Your task to perform on an android device: Go to wifi settings Image 0: 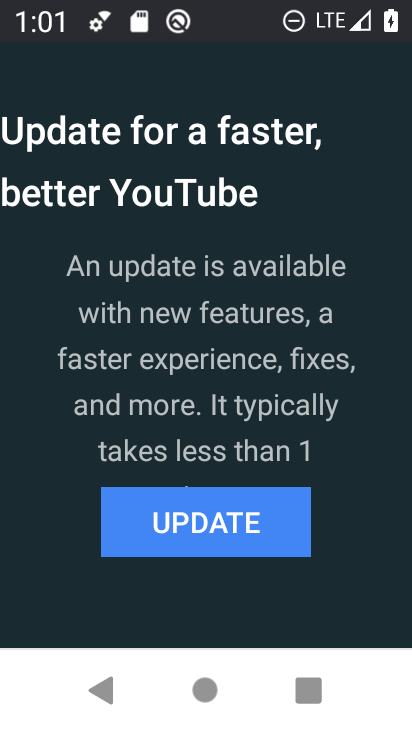
Step 0: press home button
Your task to perform on an android device: Go to wifi settings Image 1: 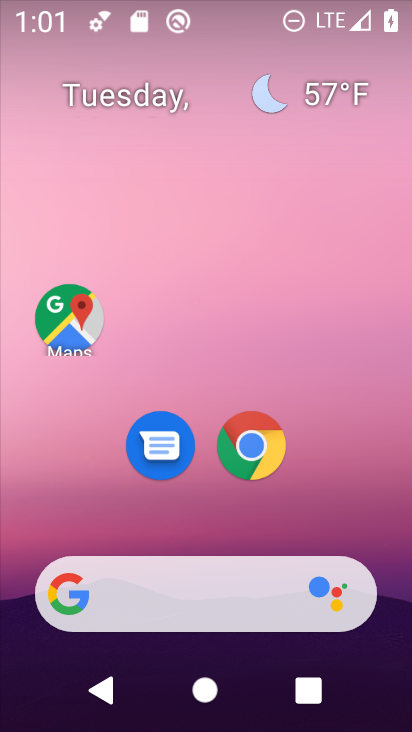
Step 1: drag from (366, 530) to (379, 225)
Your task to perform on an android device: Go to wifi settings Image 2: 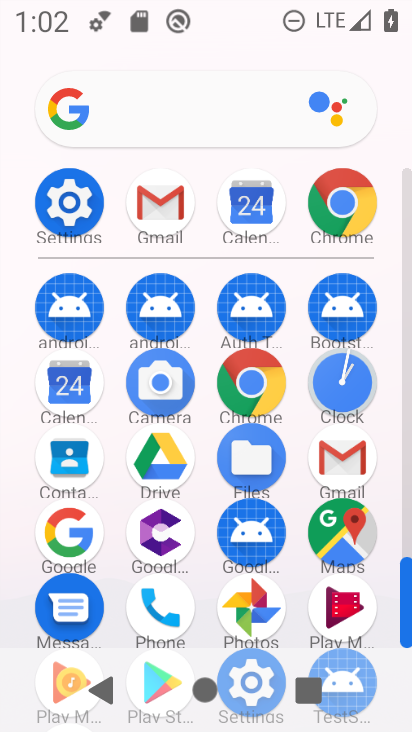
Step 2: drag from (391, 542) to (381, 295)
Your task to perform on an android device: Go to wifi settings Image 3: 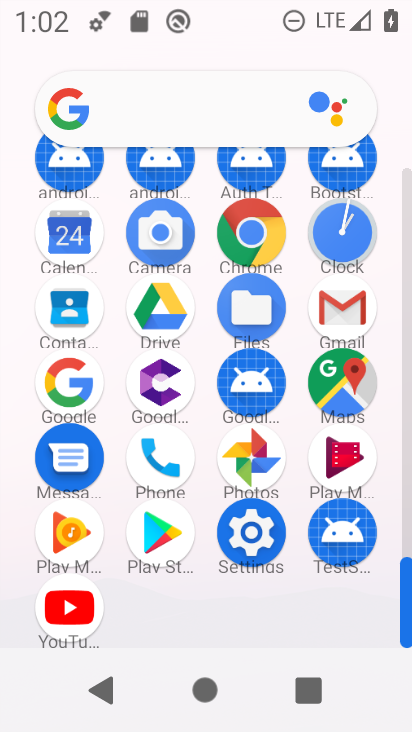
Step 3: click (254, 561)
Your task to perform on an android device: Go to wifi settings Image 4: 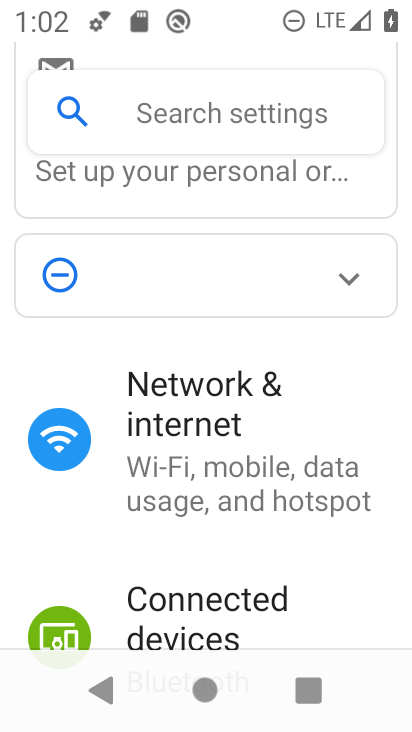
Step 4: click (336, 492)
Your task to perform on an android device: Go to wifi settings Image 5: 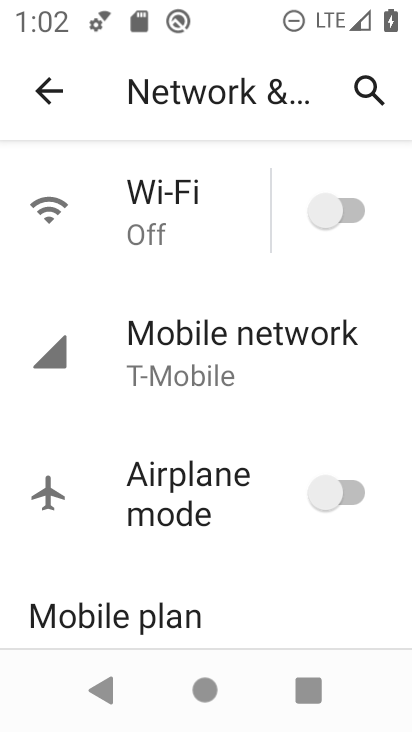
Step 5: click (203, 243)
Your task to perform on an android device: Go to wifi settings Image 6: 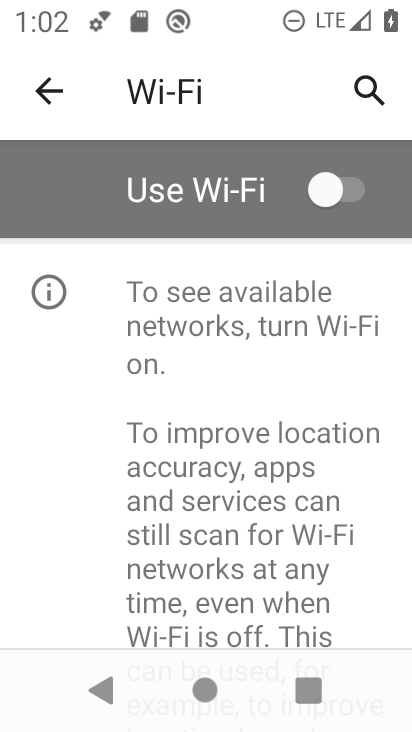
Step 6: task complete